Your task to perform on an android device: Open CNN.com Image 0: 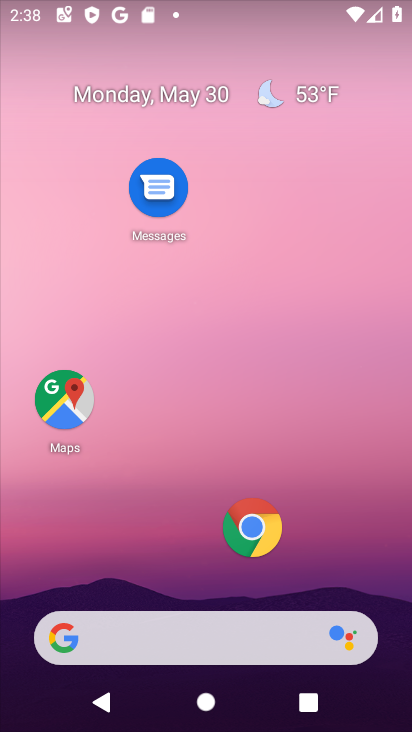
Step 0: drag from (151, 583) to (265, 119)
Your task to perform on an android device: Open CNN.com Image 1: 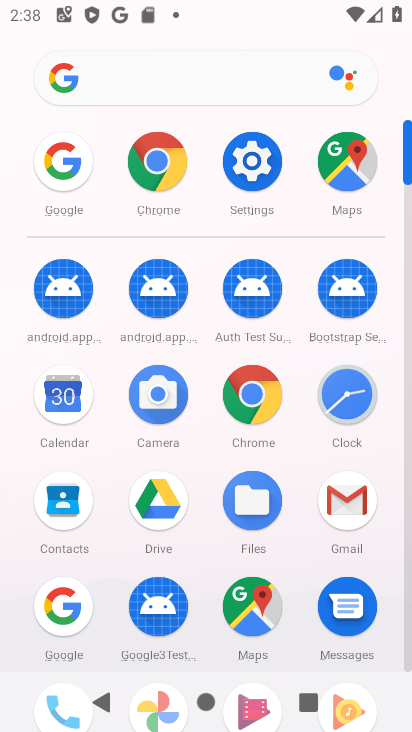
Step 1: click (271, 406)
Your task to perform on an android device: Open CNN.com Image 2: 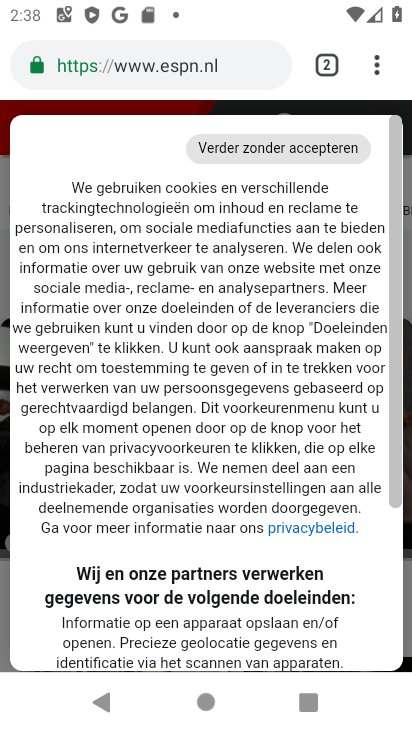
Step 2: click (327, 70)
Your task to perform on an android device: Open CNN.com Image 3: 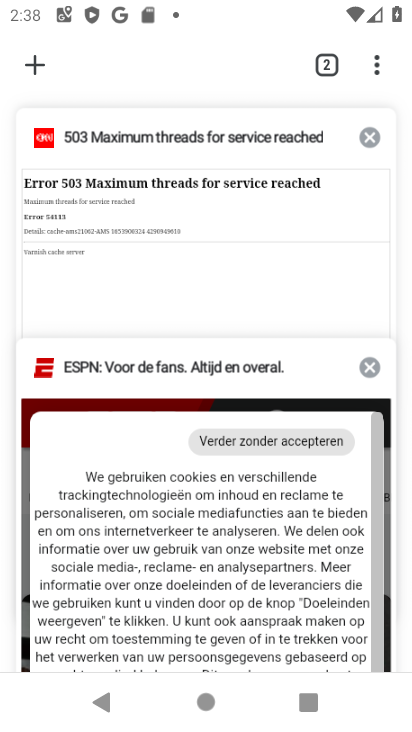
Step 3: click (23, 72)
Your task to perform on an android device: Open CNN.com Image 4: 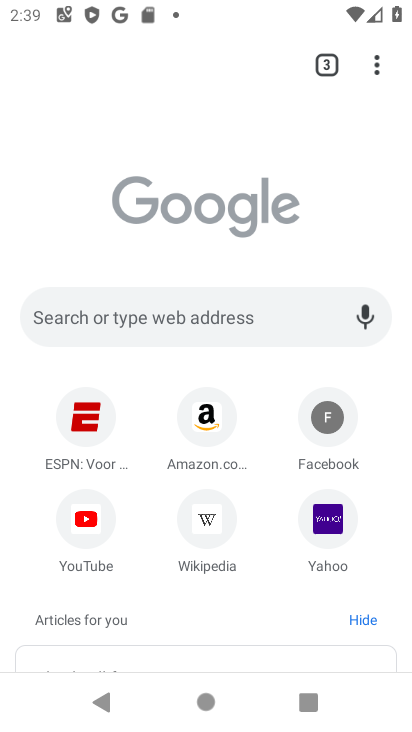
Step 4: click (171, 318)
Your task to perform on an android device: Open CNN.com Image 5: 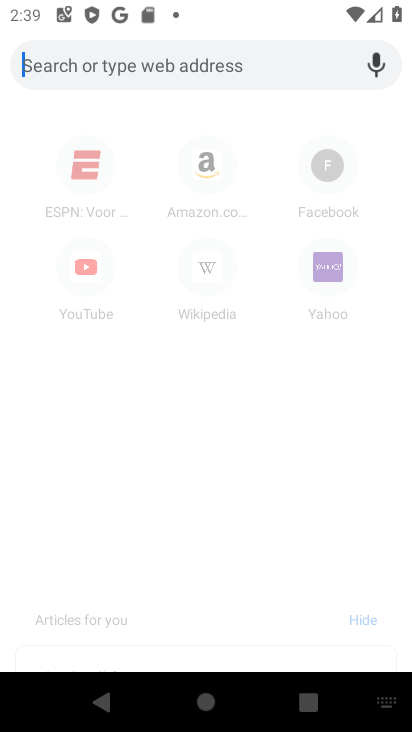
Step 5: type "CNN.com"
Your task to perform on an android device: Open CNN.com Image 6: 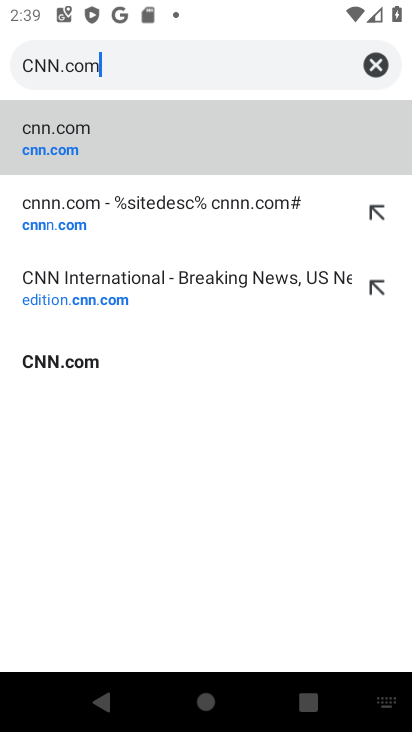
Step 6: type ""
Your task to perform on an android device: Open CNN.com Image 7: 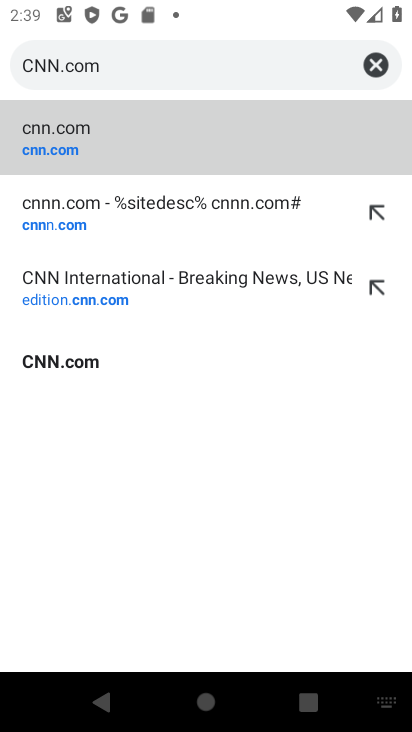
Step 7: click (103, 160)
Your task to perform on an android device: Open CNN.com Image 8: 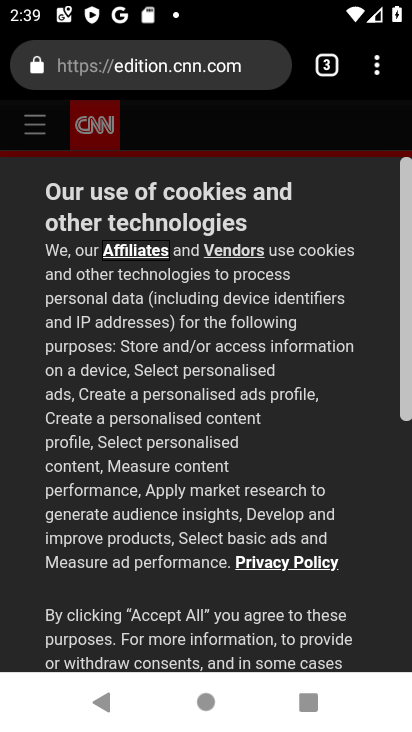
Step 8: task complete